Your task to perform on an android device: Do I have any events today? Image 0: 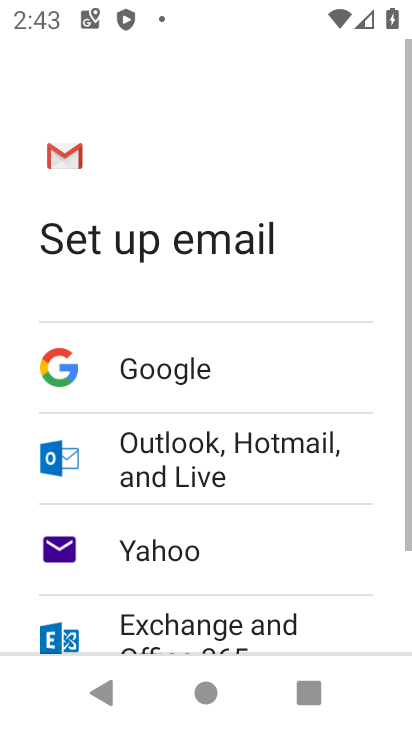
Step 0: press home button
Your task to perform on an android device: Do I have any events today? Image 1: 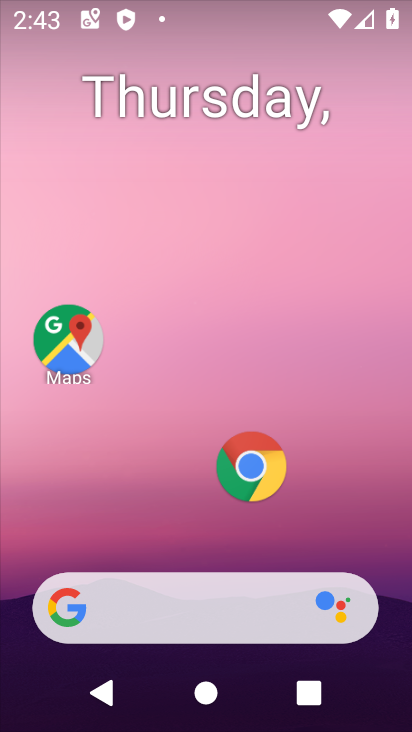
Step 1: drag from (197, 556) to (225, 138)
Your task to perform on an android device: Do I have any events today? Image 2: 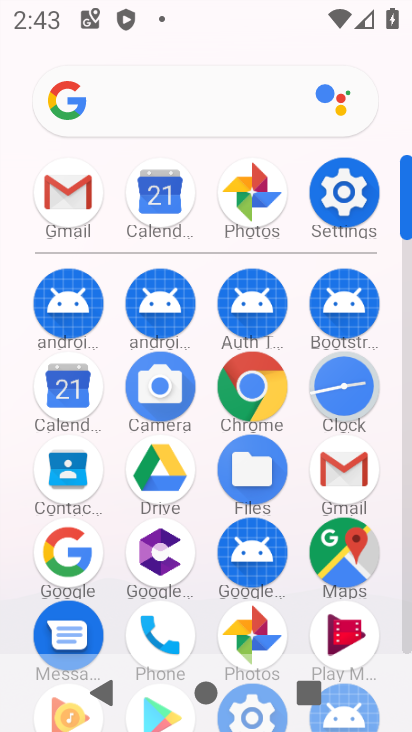
Step 2: click (61, 400)
Your task to perform on an android device: Do I have any events today? Image 3: 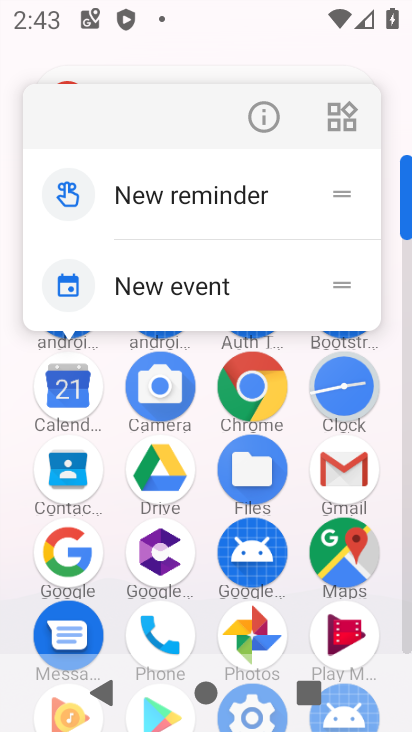
Step 3: click (61, 400)
Your task to perform on an android device: Do I have any events today? Image 4: 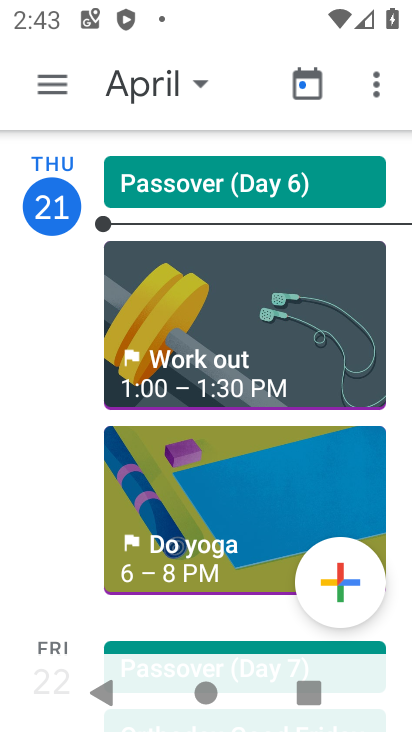
Step 4: click (191, 87)
Your task to perform on an android device: Do I have any events today? Image 5: 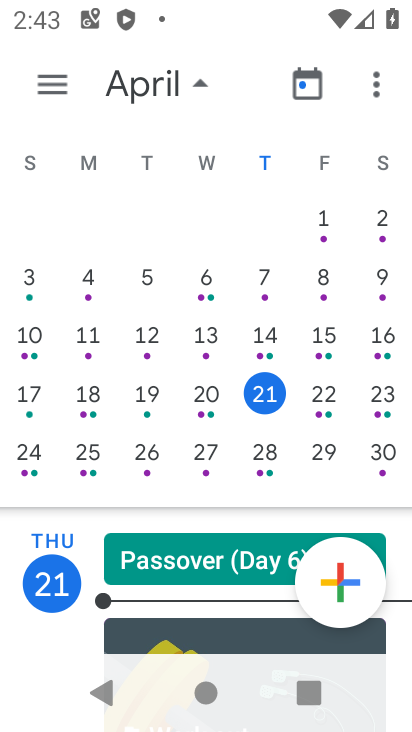
Step 5: click (261, 396)
Your task to perform on an android device: Do I have any events today? Image 6: 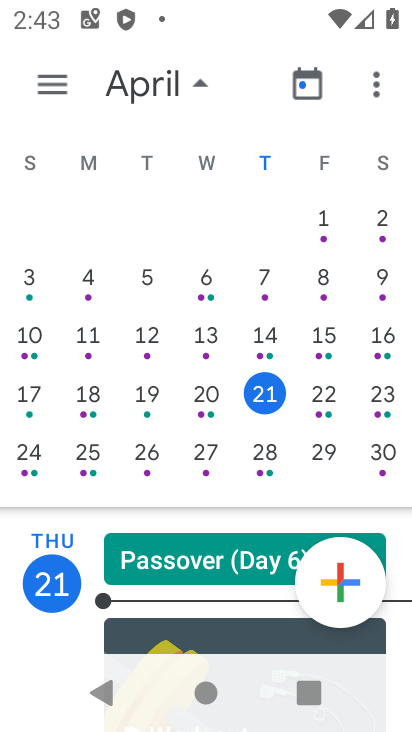
Step 6: click (249, 393)
Your task to perform on an android device: Do I have any events today? Image 7: 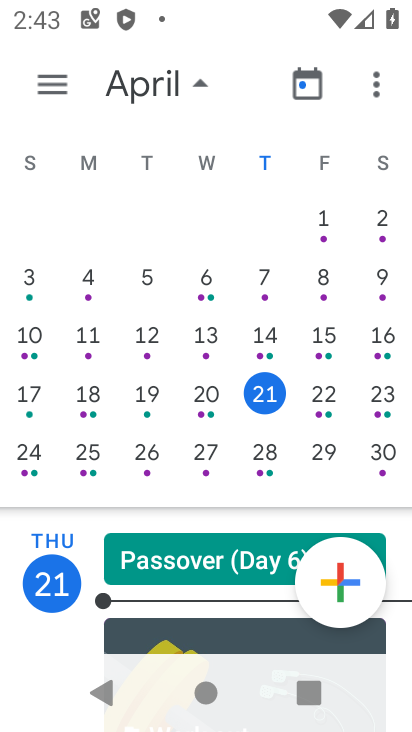
Step 7: task complete